Your task to perform on an android device: Open calendar and show me the second week of next month Image 0: 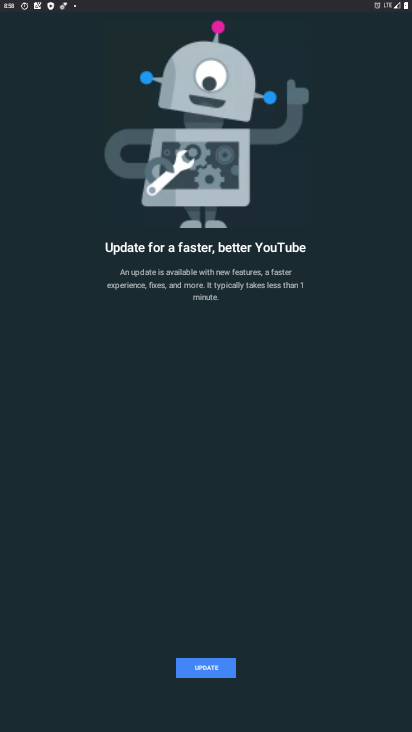
Step 0: press home button
Your task to perform on an android device: Open calendar and show me the second week of next month Image 1: 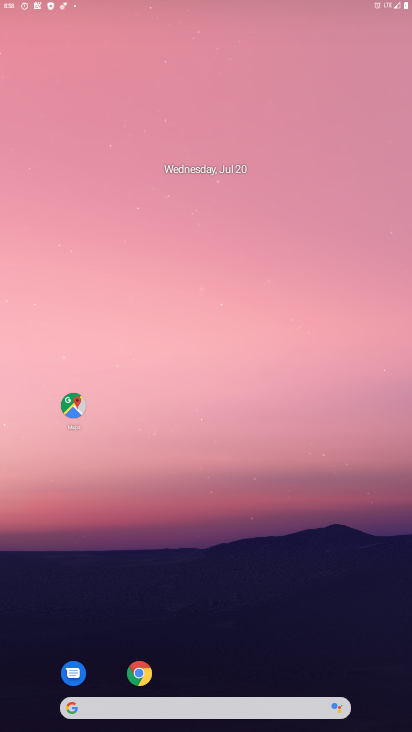
Step 1: drag from (205, 673) to (215, 38)
Your task to perform on an android device: Open calendar and show me the second week of next month Image 2: 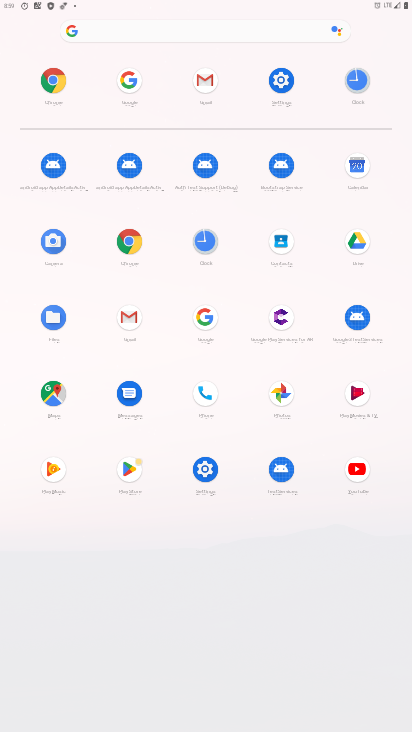
Step 2: click (355, 166)
Your task to perform on an android device: Open calendar and show me the second week of next month Image 3: 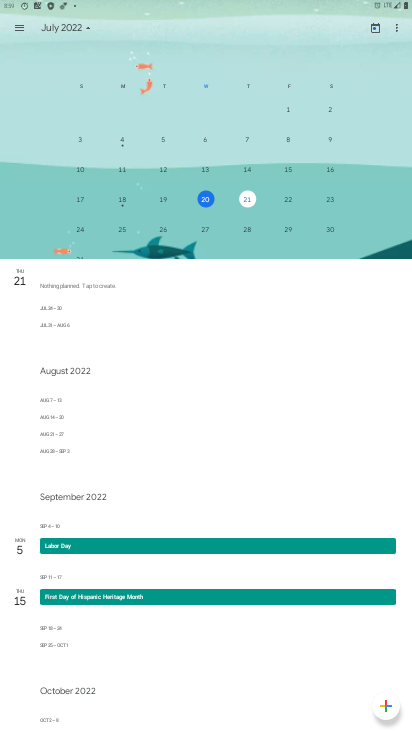
Step 3: drag from (398, 240) to (0, 263)
Your task to perform on an android device: Open calendar and show me the second week of next month Image 4: 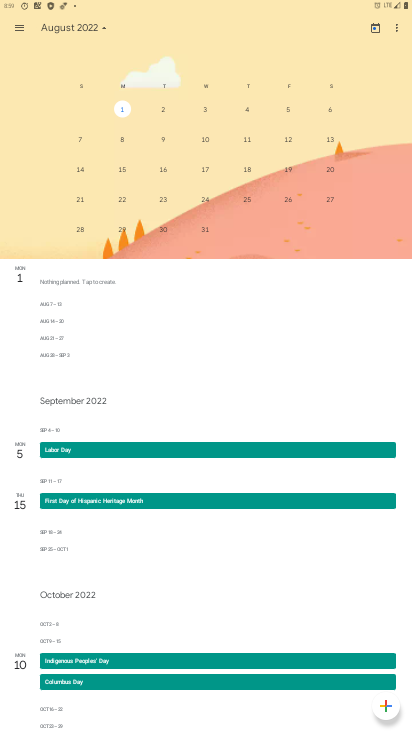
Step 4: click (123, 169)
Your task to perform on an android device: Open calendar and show me the second week of next month Image 5: 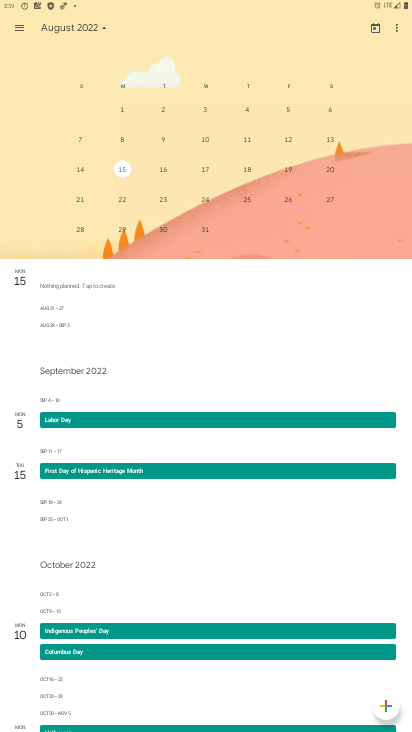
Step 5: task complete